Your task to perform on an android device: Toggle the flashlight Image 0: 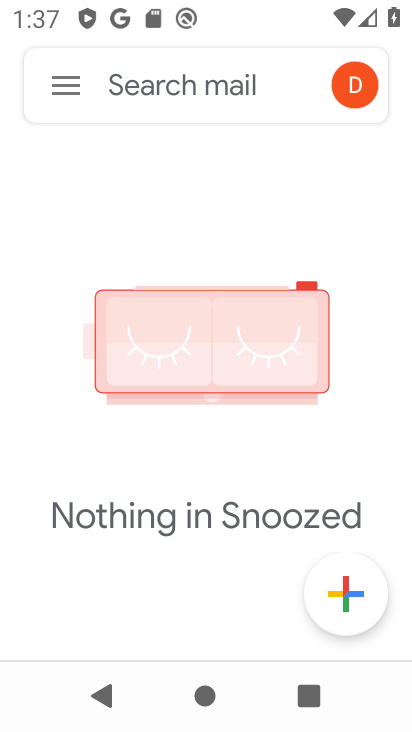
Step 0: press home button
Your task to perform on an android device: Toggle the flashlight Image 1: 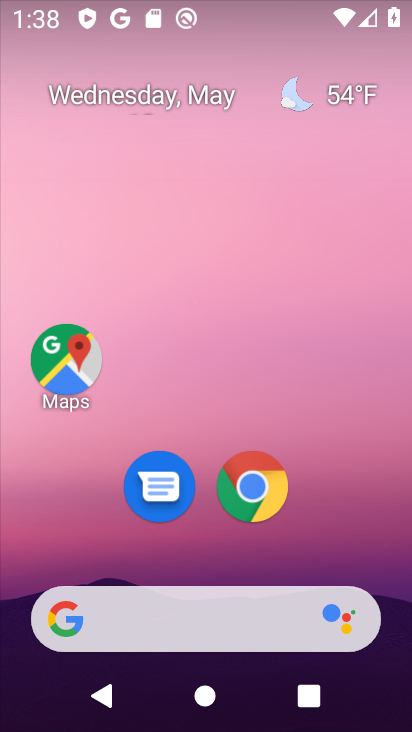
Step 1: task complete